Your task to perform on an android device: turn off improve location accuracy Image 0: 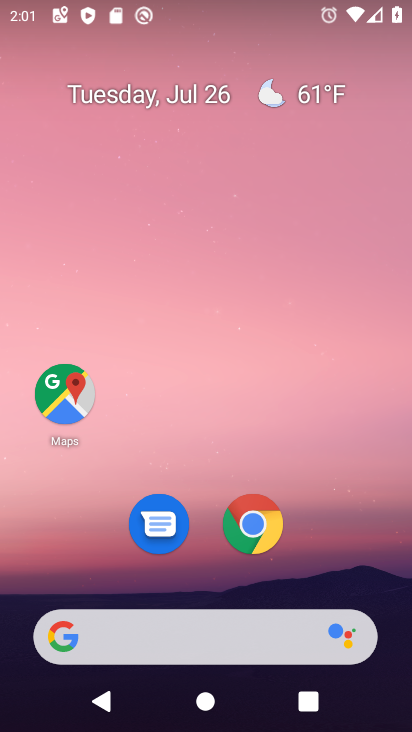
Step 0: drag from (180, 645) to (292, 107)
Your task to perform on an android device: turn off improve location accuracy Image 1: 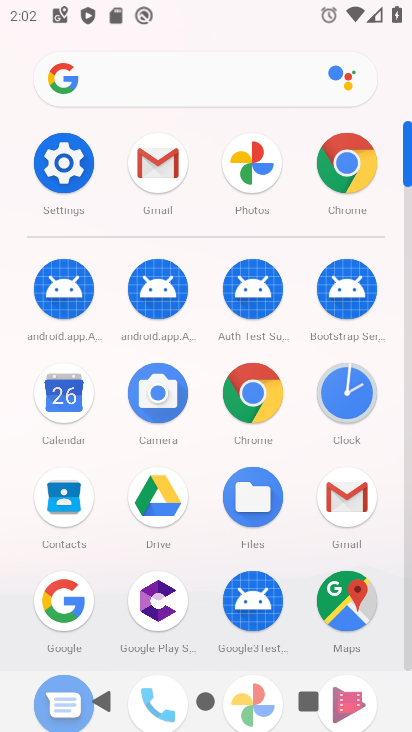
Step 1: click (77, 150)
Your task to perform on an android device: turn off improve location accuracy Image 2: 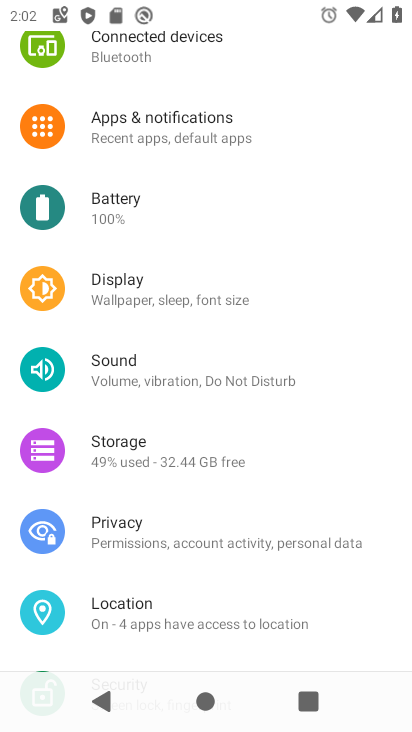
Step 2: click (143, 610)
Your task to perform on an android device: turn off improve location accuracy Image 3: 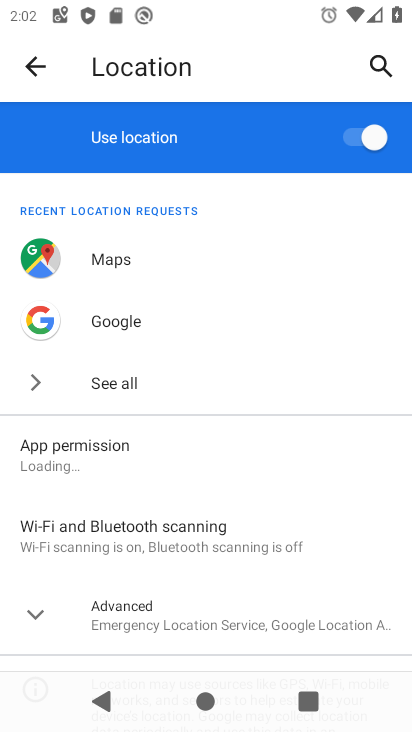
Step 3: drag from (217, 573) to (331, 189)
Your task to perform on an android device: turn off improve location accuracy Image 4: 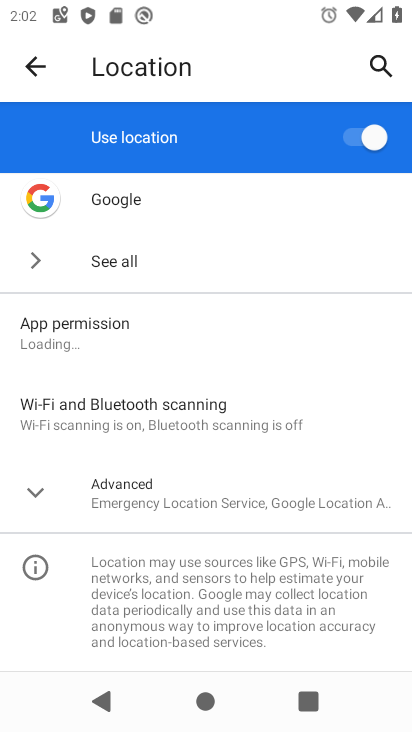
Step 4: click (152, 546)
Your task to perform on an android device: turn off improve location accuracy Image 5: 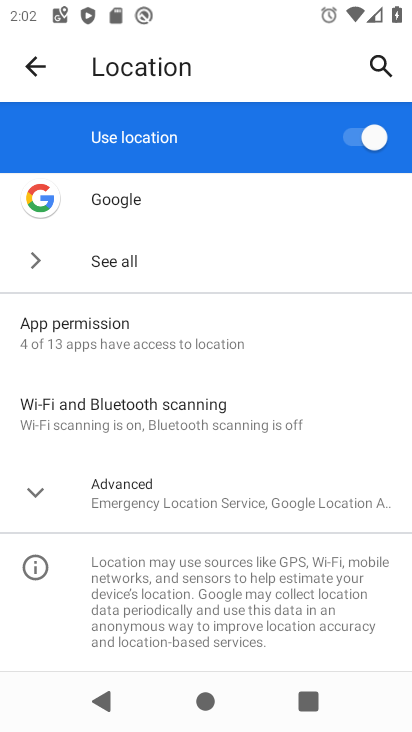
Step 5: click (126, 486)
Your task to perform on an android device: turn off improve location accuracy Image 6: 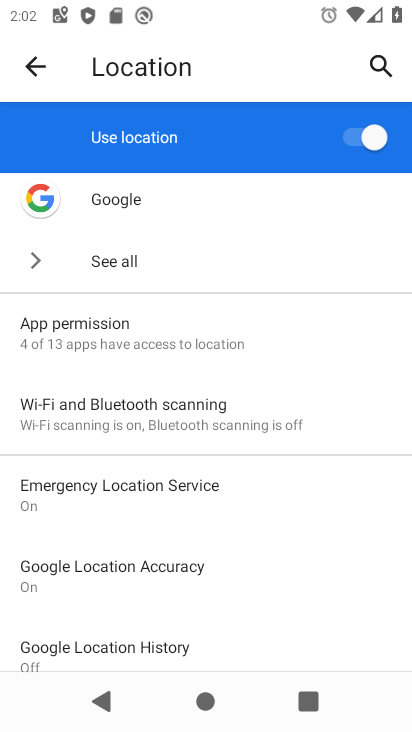
Step 6: drag from (223, 582) to (267, 282)
Your task to perform on an android device: turn off improve location accuracy Image 7: 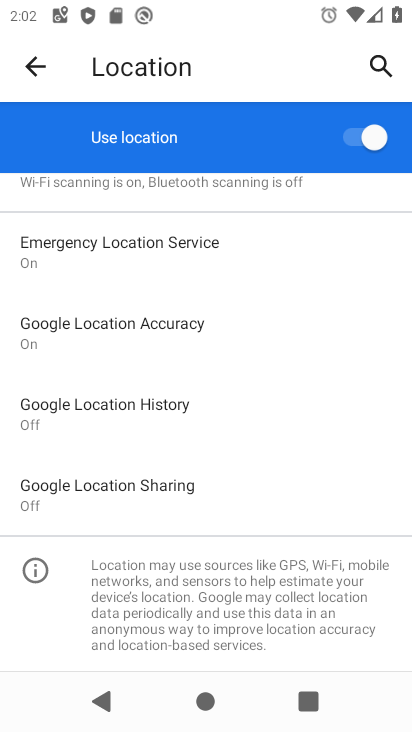
Step 7: click (156, 323)
Your task to perform on an android device: turn off improve location accuracy Image 8: 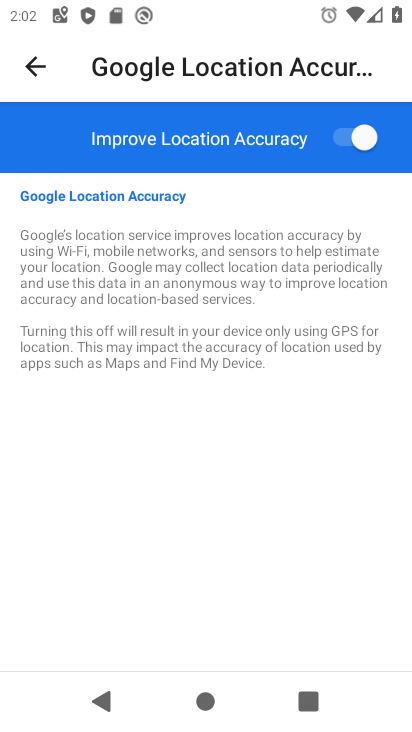
Step 8: click (341, 137)
Your task to perform on an android device: turn off improve location accuracy Image 9: 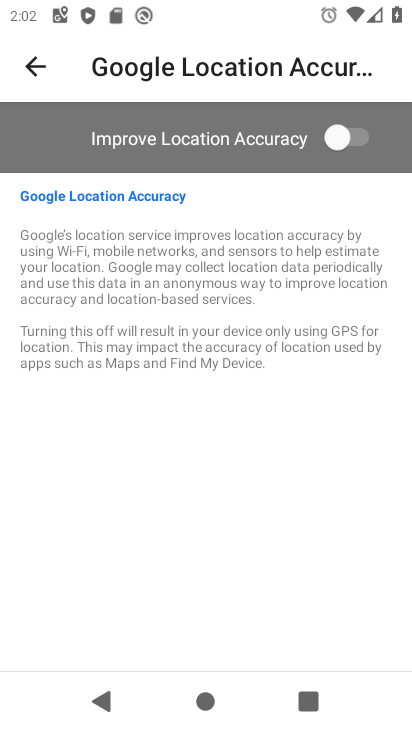
Step 9: task complete